Your task to perform on an android device: move a message to another label in the gmail app Image 0: 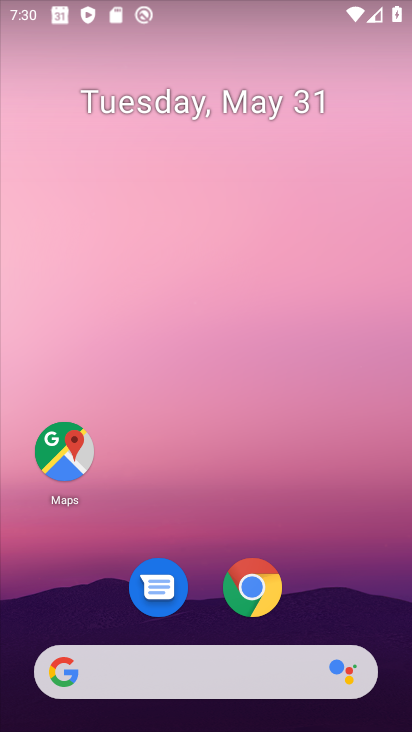
Step 0: drag from (188, 626) to (245, 243)
Your task to perform on an android device: move a message to another label in the gmail app Image 1: 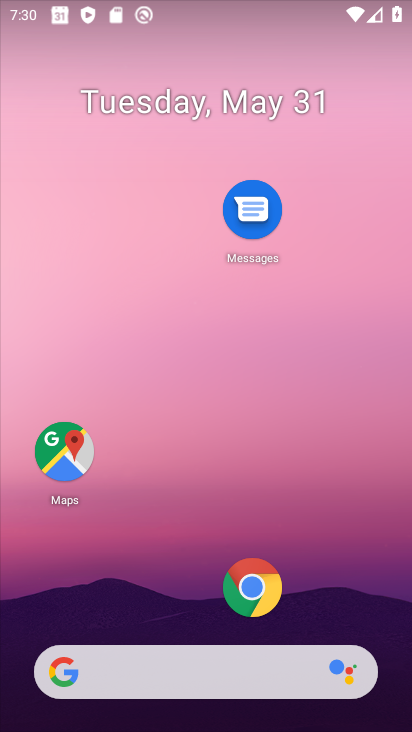
Step 1: drag from (191, 577) to (140, 3)
Your task to perform on an android device: move a message to another label in the gmail app Image 2: 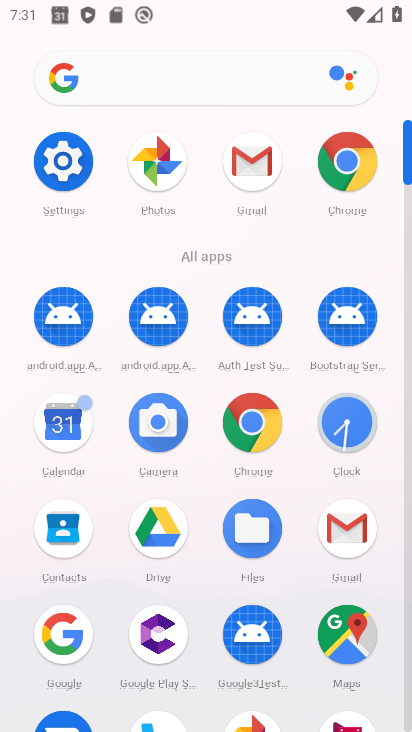
Step 2: click (245, 183)
Your task to perform on an android device: move a message to another label in the gmail app Image 3: 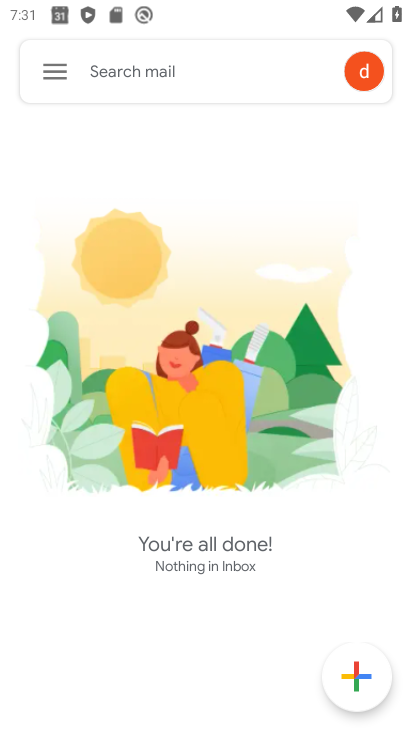
Step 3: click (61, 73)
Your task to perform on an android device: move a message to another label in the gmail app Image 4: 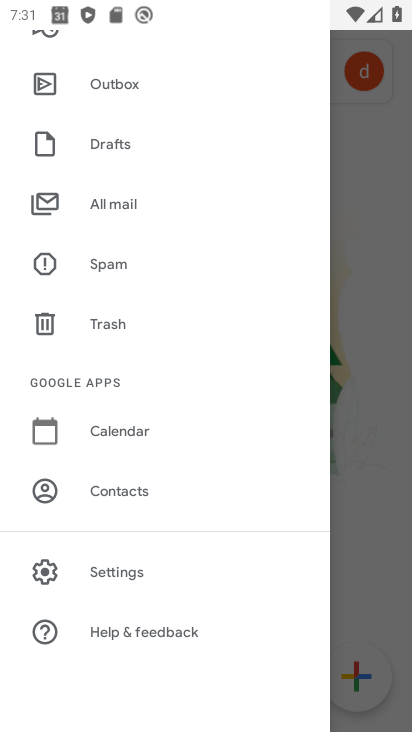
Step 4: click (116, 212)
Your task to perform on an android device: move a message to another label in the gmail app Image 5: 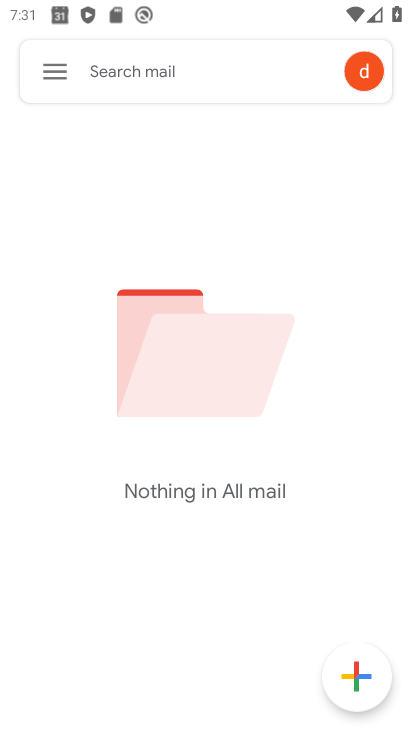
Step 5: task complete